Your task to perform on an android device: Find coffee shops on Maps Image 0: 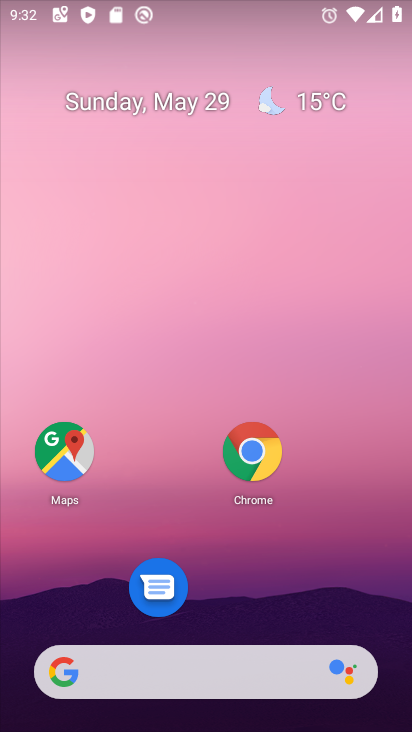
Step 0: click (78, 468)
Your task to perform on an android device: Find coffee shops on Maps Image 1: 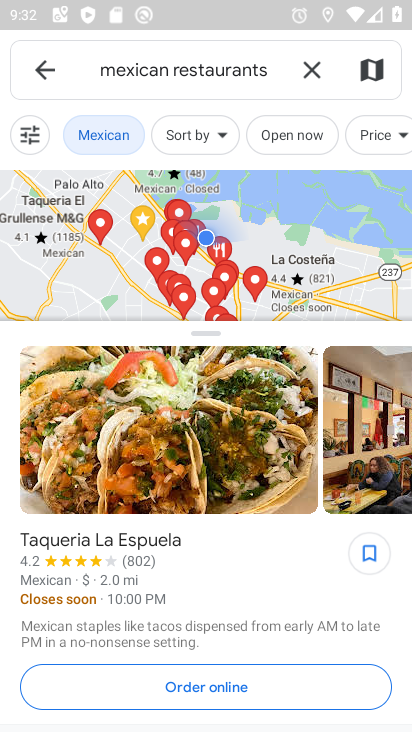
Step 1: click (312, 79)
Your task to perform on an android device: Find coffee shops on Maps Image 2: 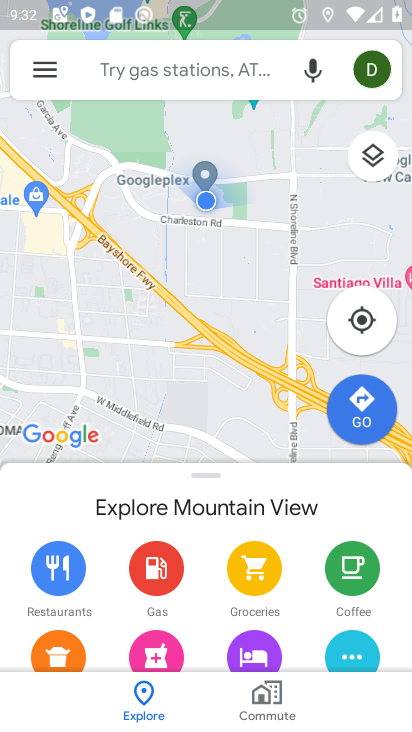
Step 2: click (190, 67)
Your task to perform on an android device: Find coffee shops on Maps Image 3: 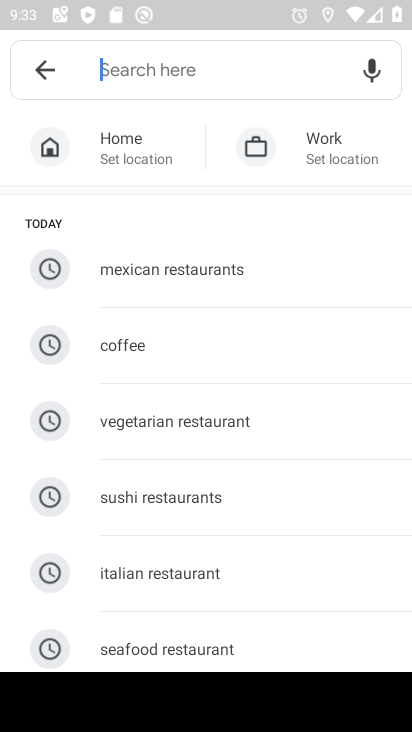
Step 3: click (136, 366)
Your task to perform on an android device: Find coffee shops on Maps Image 4: 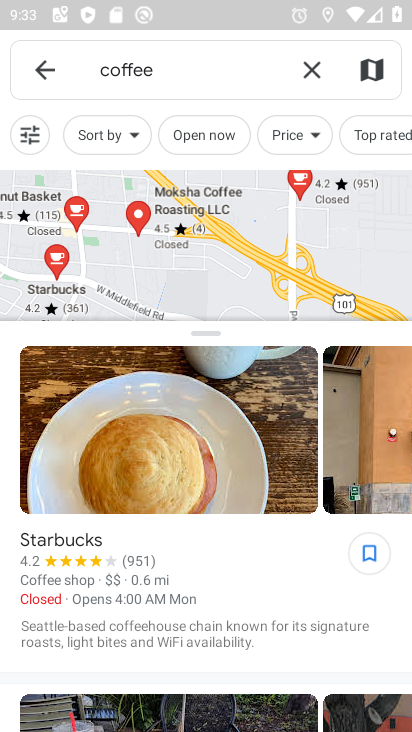
Step 4: task complete